Your task to perform on an android device: change text size in settings app Image 0: 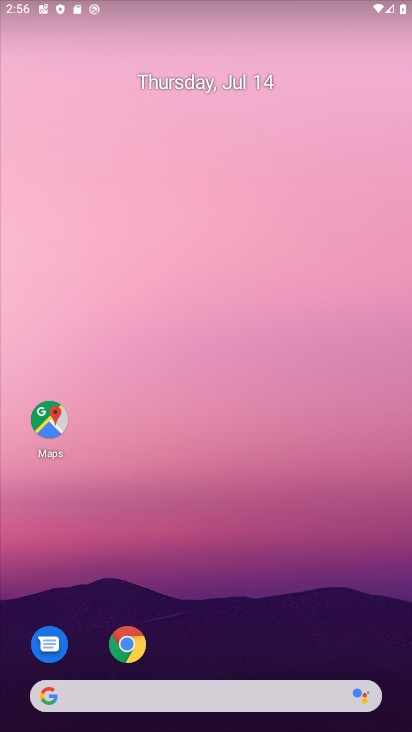
Step 0: drag from (237, 575) to (219, 363)
Your task to perform on an android device: change text size in settings app Image 1: 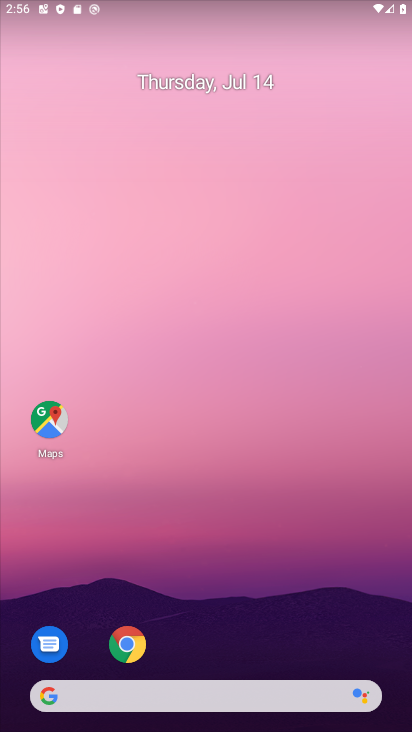
Step 1: drag from (198, 654) to (265, 92)
Your task to perform on an android device: change text size in settings app Image 2: 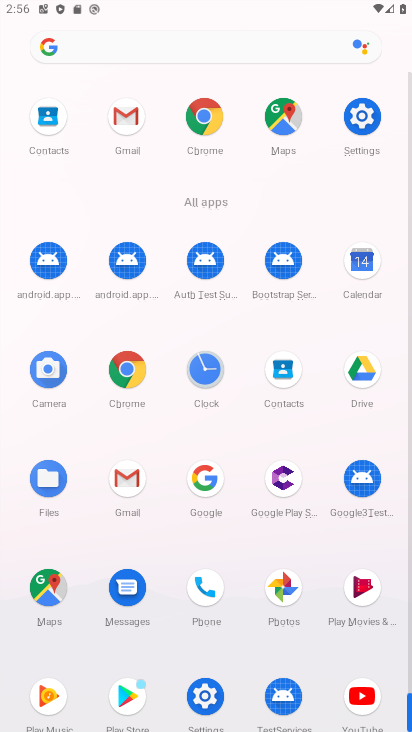
Step 2: click (360, 109)
Your task to perform on an android device: change text size in settings app Image 3: 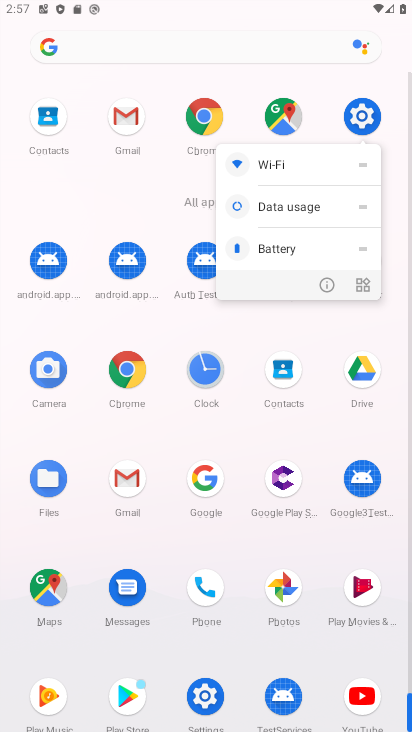
Step 3: click (323, 283)
Your task to perform on an android device: change text size in settings app Image 4: 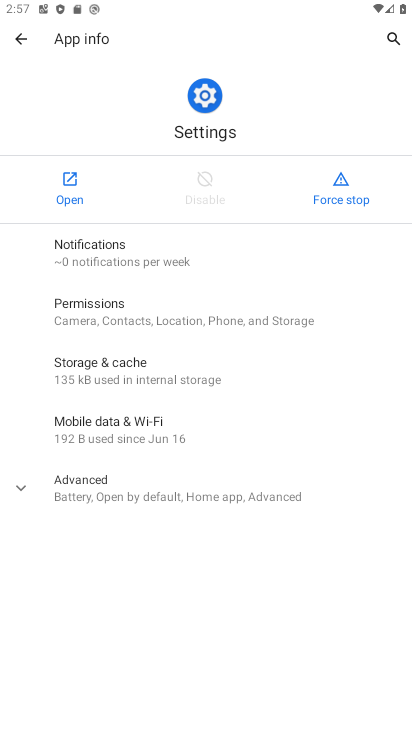
Step 4: click (60, 211)
Your task to perform on an android device: change text size in settings app Image 5: 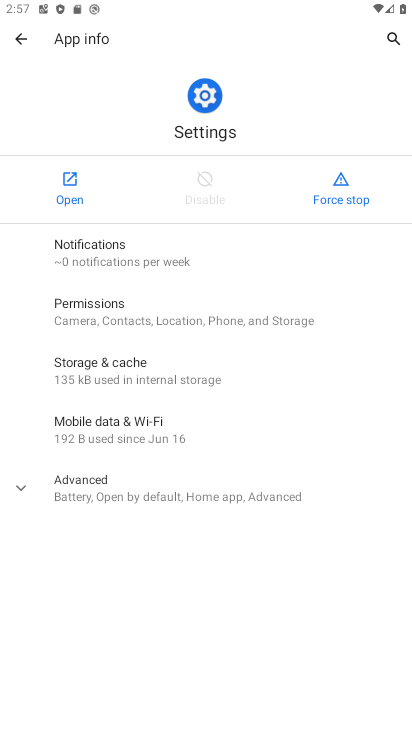
Step 5: click (60, 211)
Your task to perform on an android device: change text size in settings app Image 6: 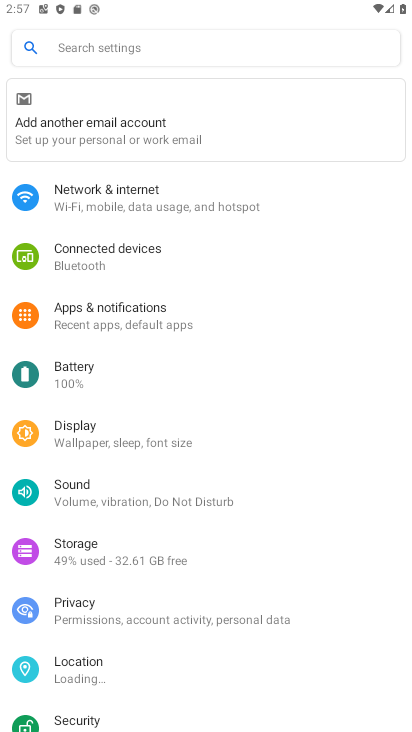
Step 6: click (137, 427)
Your task to perform on an android device: change text size in settings app Image 7: 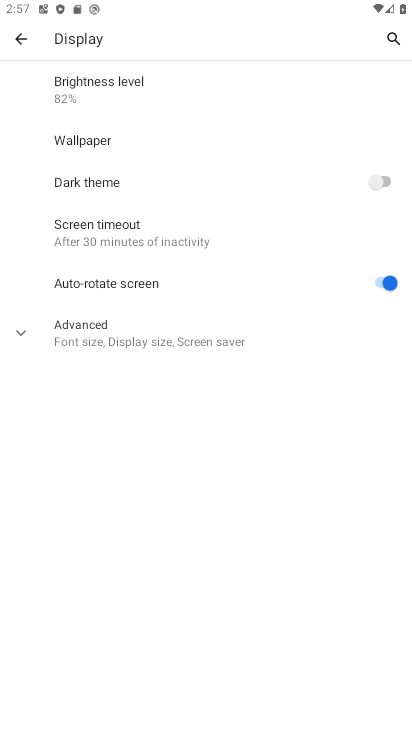
Step 7: click (158, 341)
Your task to perform on an android device: change text size in settings app Image 8: 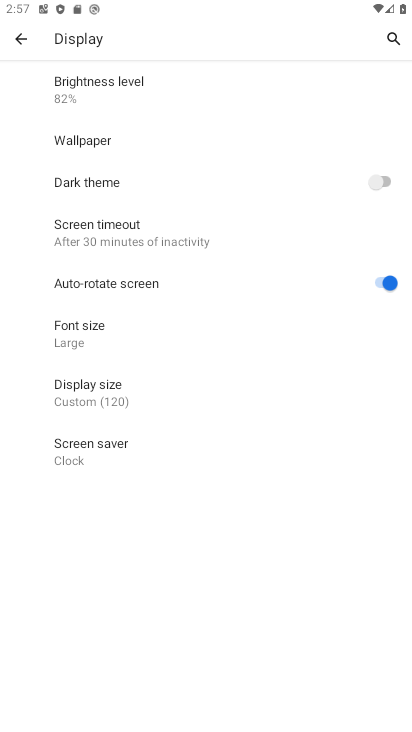
Step 8: click (116, 332)
Your task to perform on an android device: change text size in settings app Image 9: 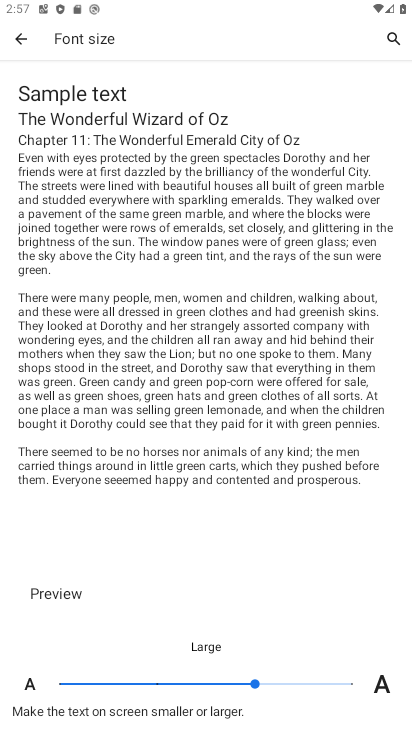
Step 9: click (328, 687)
Your task to perform on an android device: change text size in settings app Image 10: 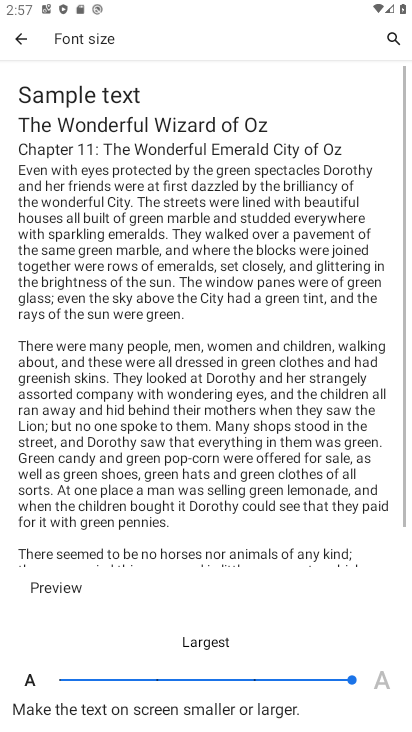
Step 10: task complete